Your task to perform on an android device: set default search engine in the chrome app Image 0: 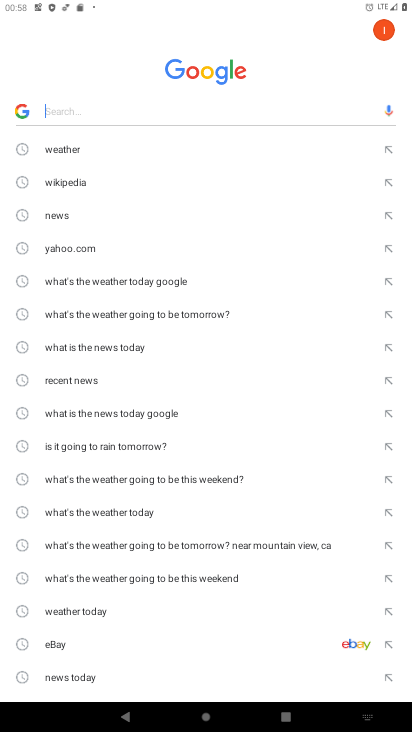
Step 0: press home button
Your task to perform on an android device: set default search engine in the chrome app Image 1: 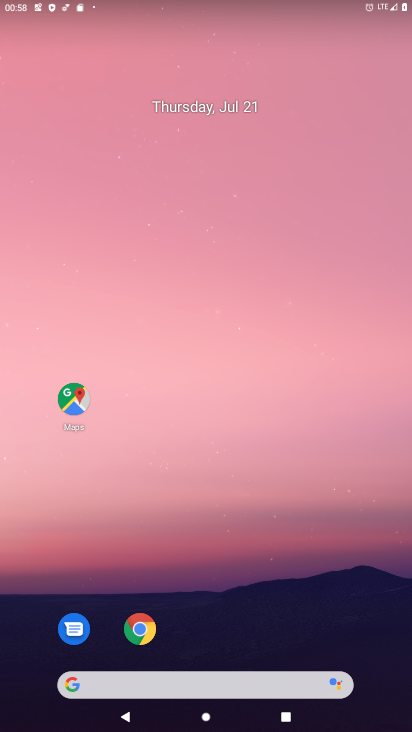
Step 1: drag from (296, 584) to (152, 4)
Your task to perform on an android device: set default search engine in the chrome app Image 2: 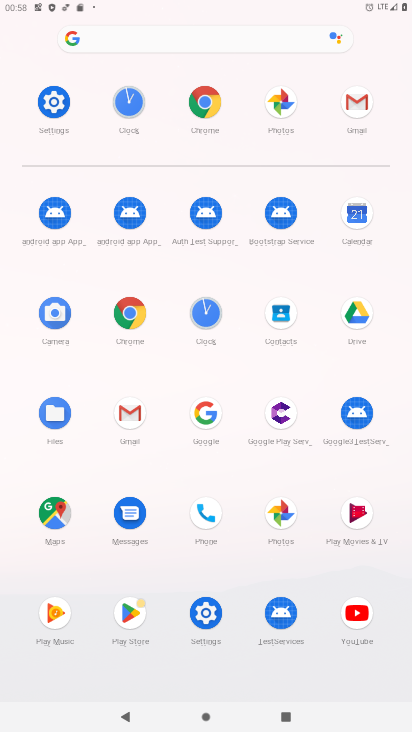
Step 2: click (126, 316)
Your task to perform on an android device: set default search engine in the chrome app Image 3: 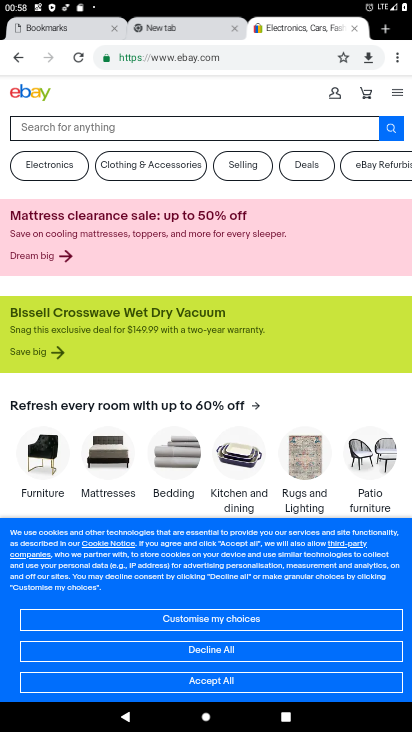
Step 3: drag from (403, 58) to (283, 429)
Your task to perform on an android device: set default search engine in the chrome app Image 4: 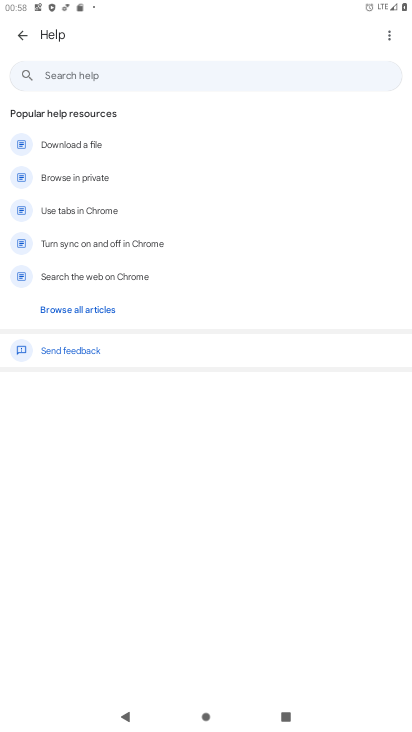
Step 4: press back button
Your task to perform on an android device: set default search engine in the chrome app Image 5: 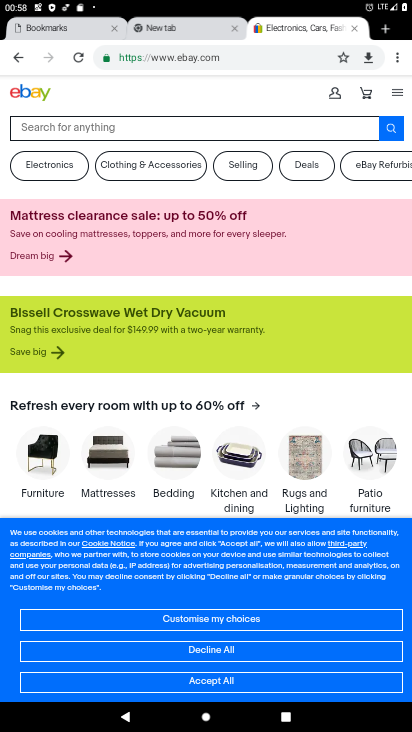
Step 5: drag from (394, 61) to (306, 413)
Your task to perform on an android device: set default search engine in the chrome app Image 6: 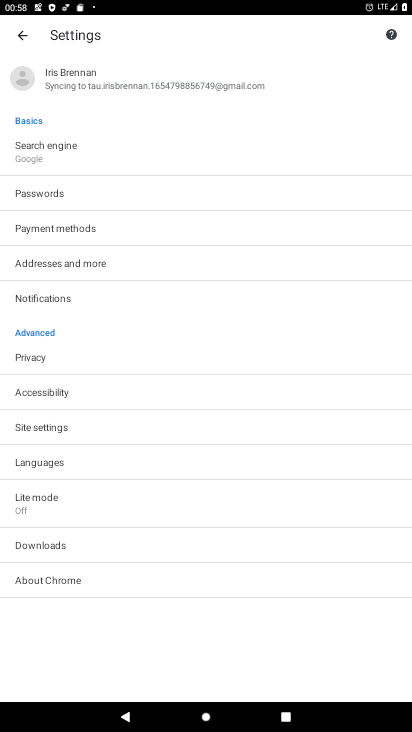
Step 6: click (118, 145)
Your task to perform on an android device: set default search engine in the chrome app Image 7: 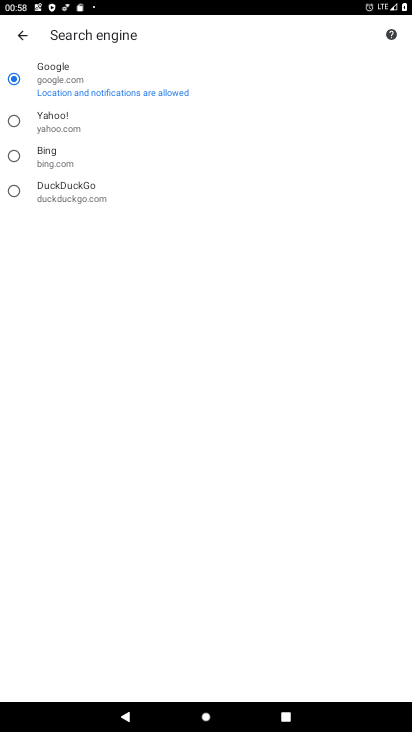
Step 7: task complete